Your task to perform on an android device: What's the weather like in Paris? Image 0: 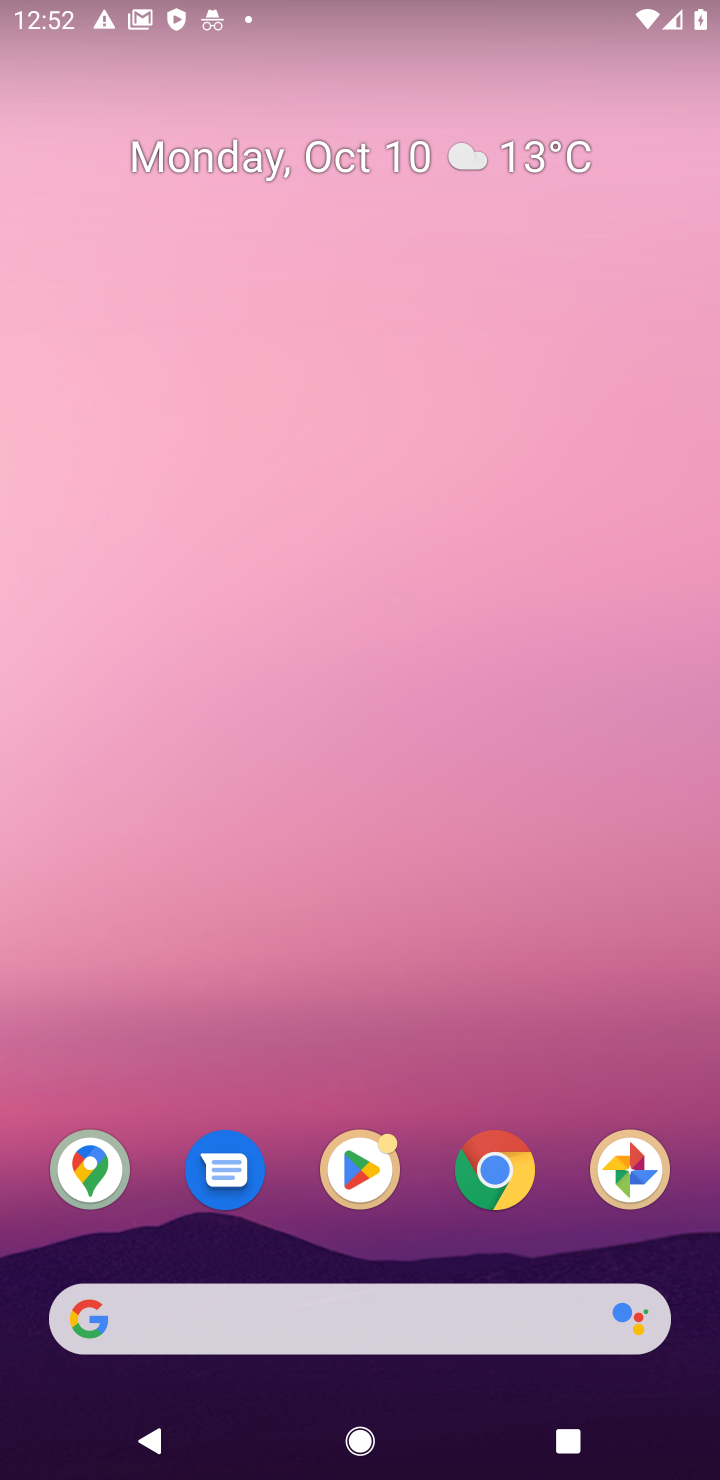
Step 0: click (495, 1165)
Your task to perform on an android device: What's the weather like in Paris? Image 1: 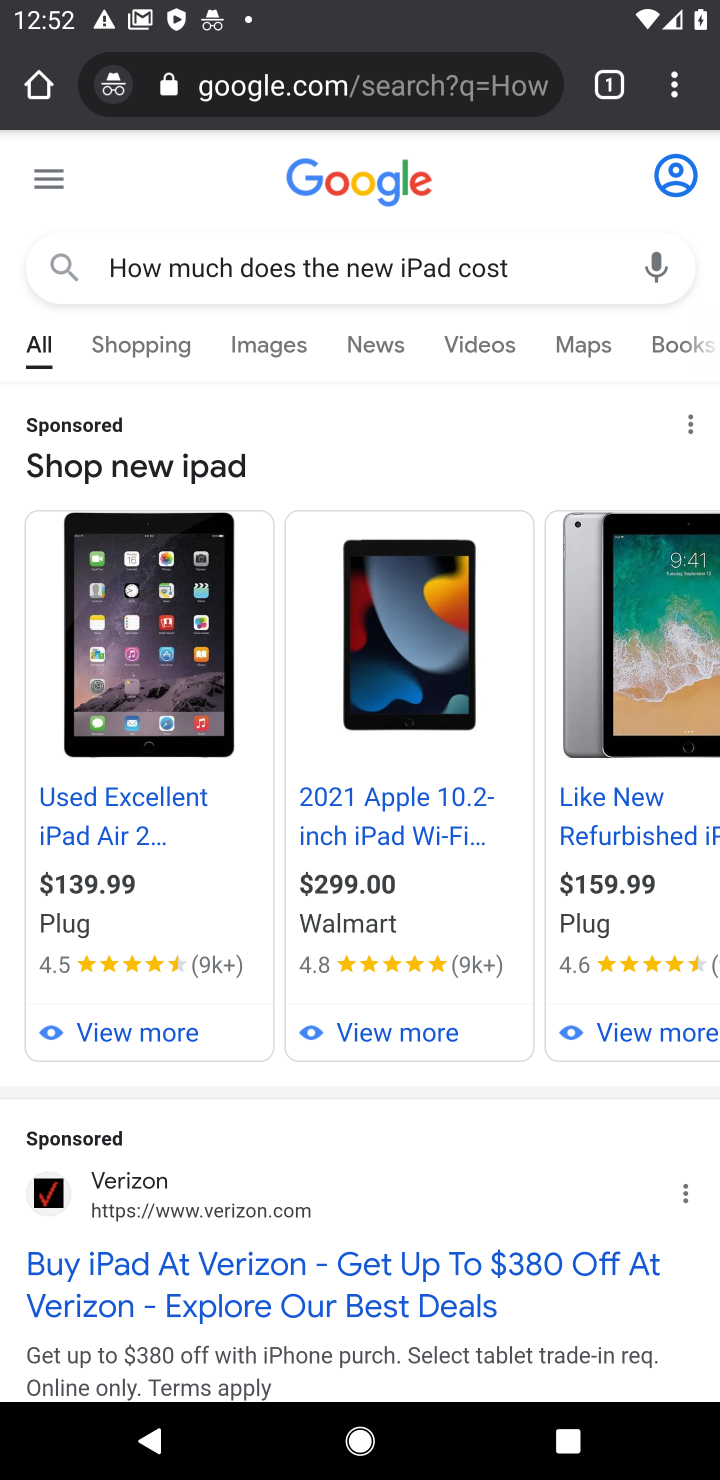
Step 1: click (518, 95)
Your task to perform on an android device: What's the weather like in Paris? Image 2: 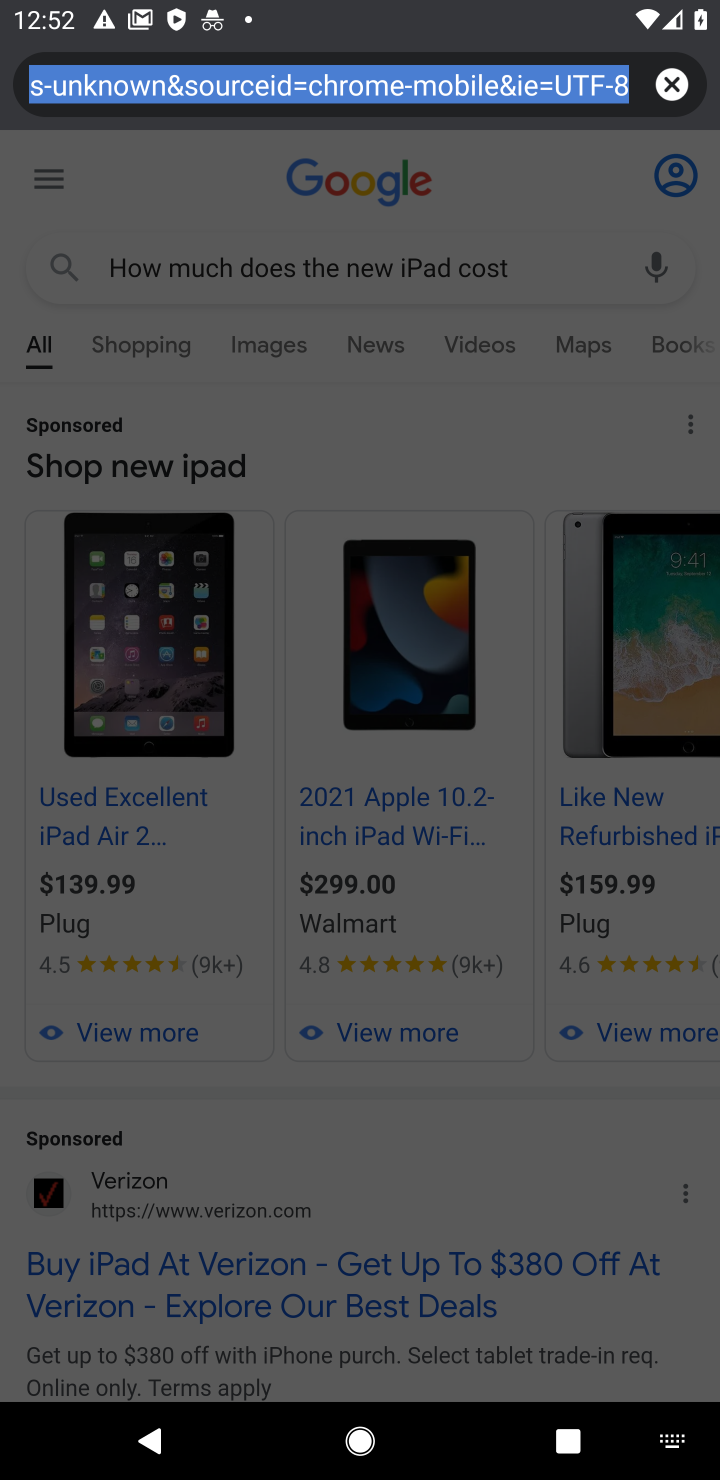
Step 2: click (684, 83)
Your task to perform on an android device: What's the weather like in Paris? Image 3: 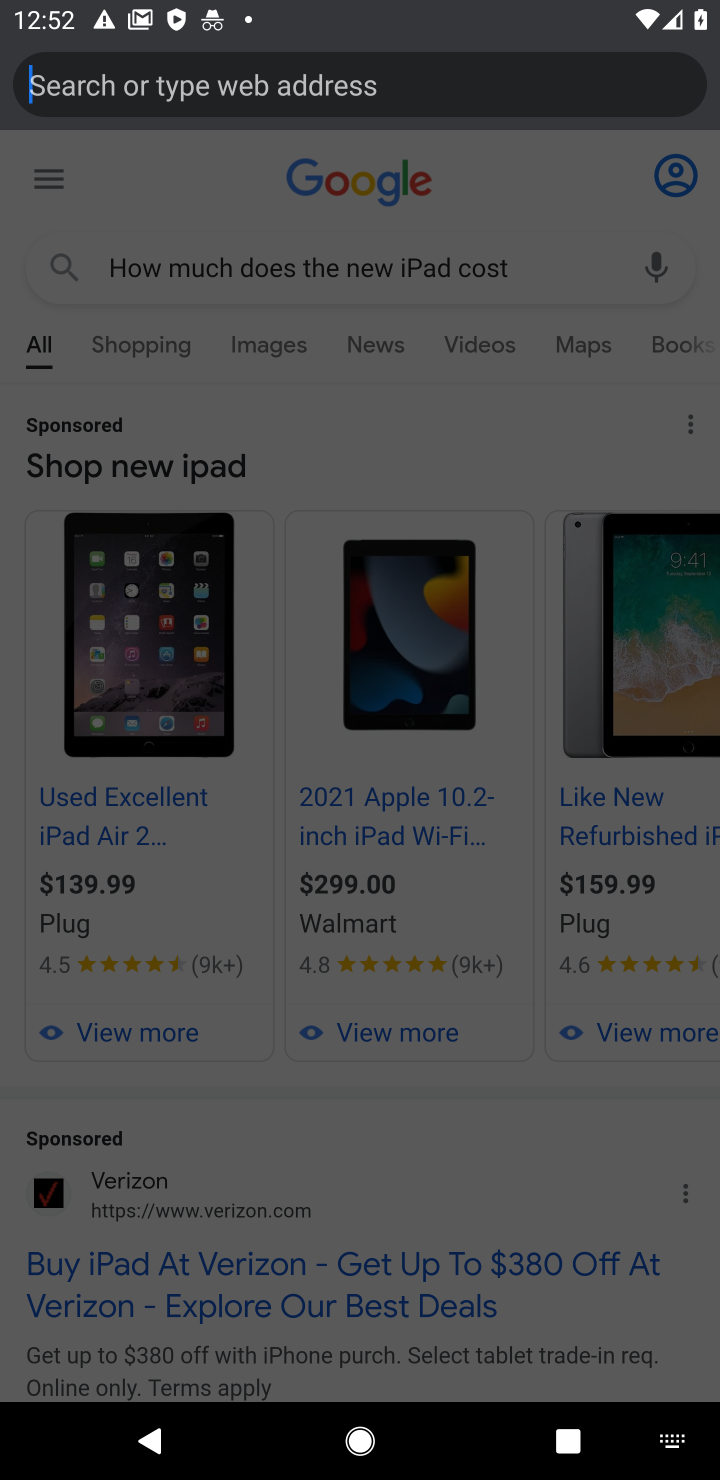
Step 3: click (413, 70)
Your task to perform on an android device: What's the weather like in Paris? Image 4: 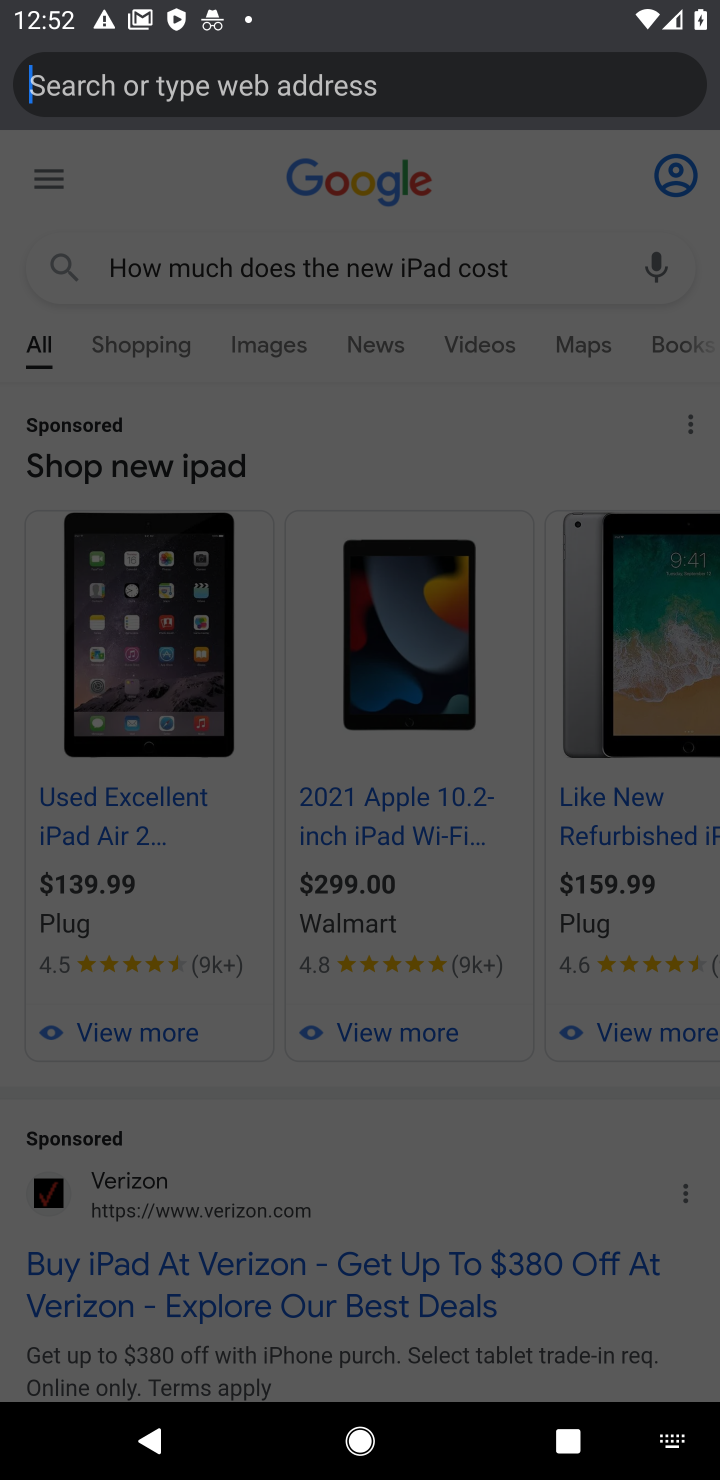
Step 4: type "What's the weather like in Paris"
Your task to perform on an android device: What's the weather like in Paris? Image 5: 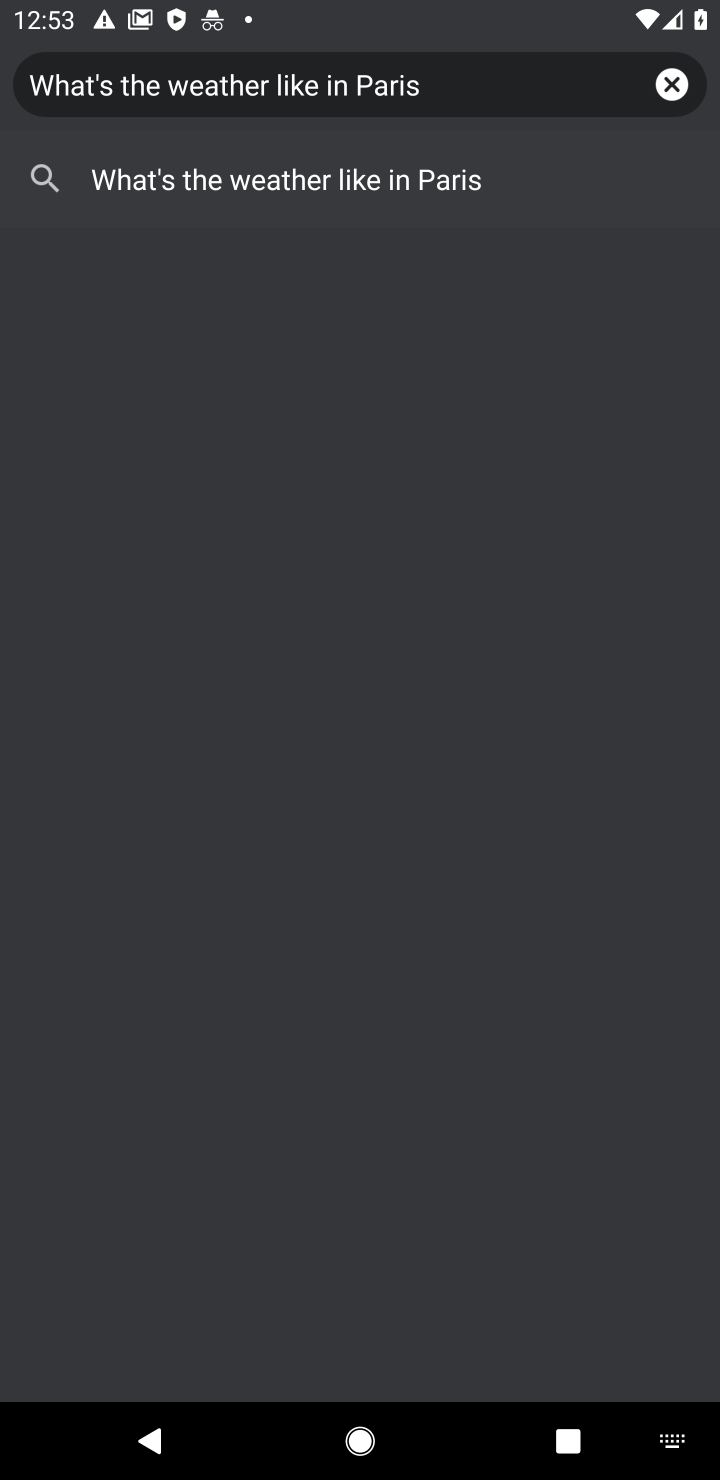
Step 5: click (418, 178)
Your task to perform on an android device: What's the weather like in Paris? Image 6: 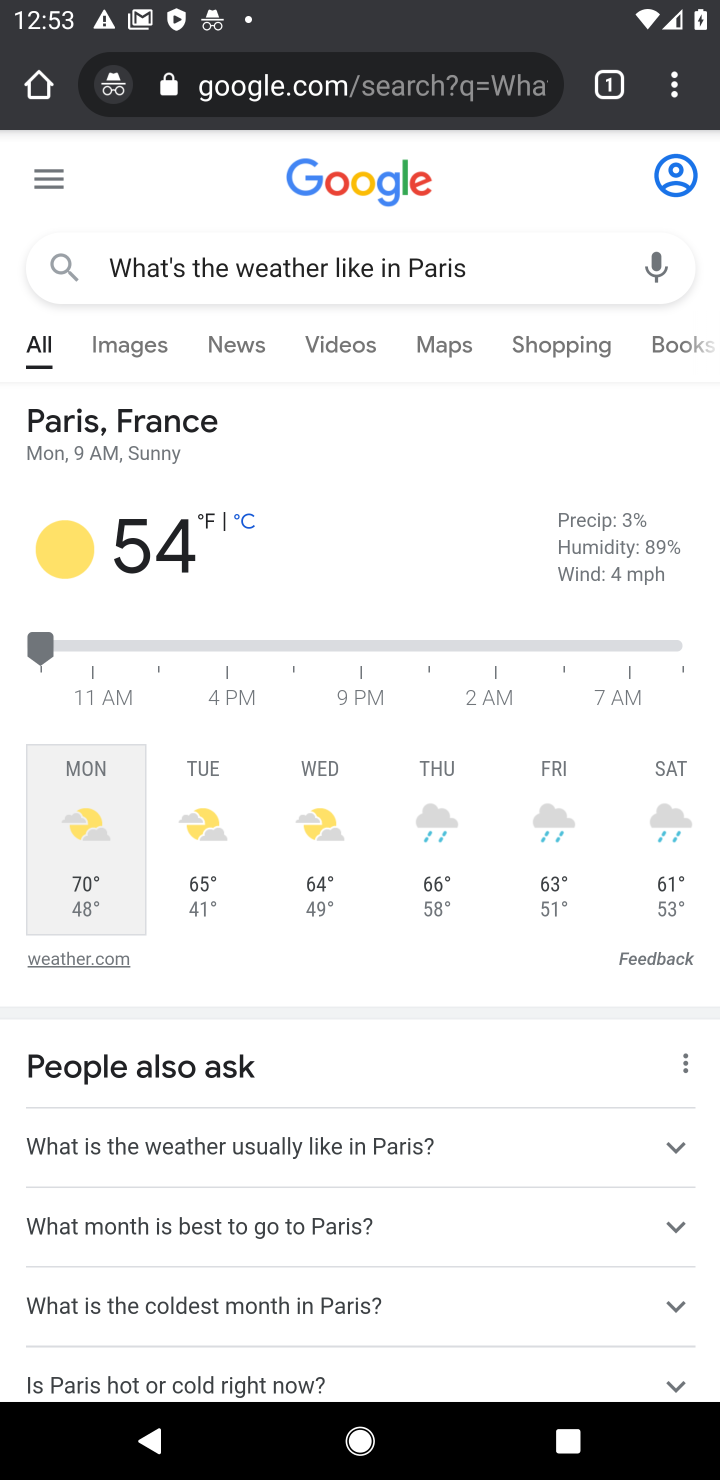
Step 6: task complete